Your task to perform on an android device: turn off airplane mode Image 0: 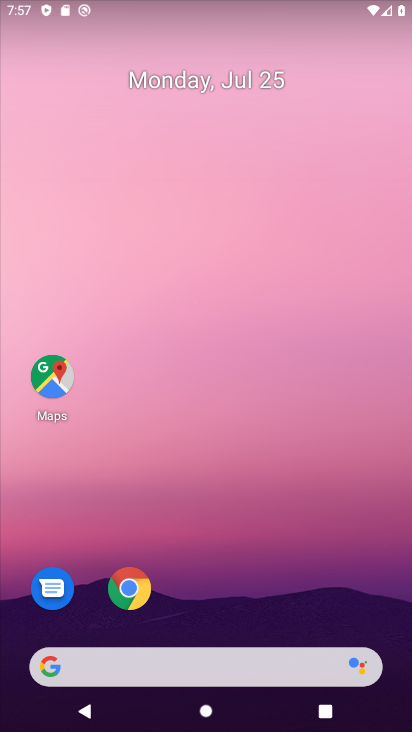
Step 0: drag from (224, 615) to (234, 213)
Your task to perform on an android device: turn off airplane mode Image 1: 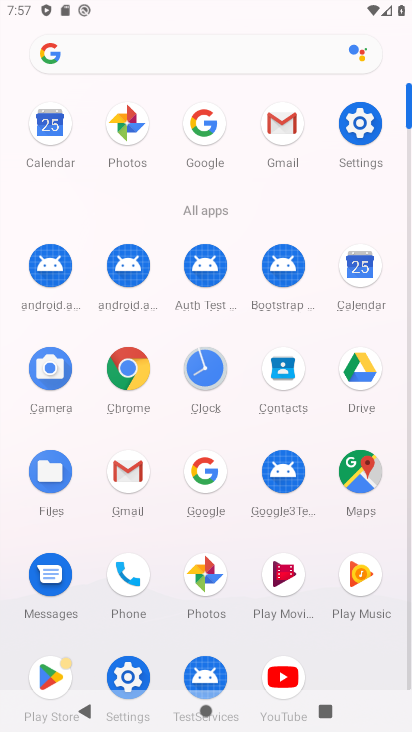
Step 1: click (360, 124)
Your task to perform on an android device: turn off airplane mode Image 2: 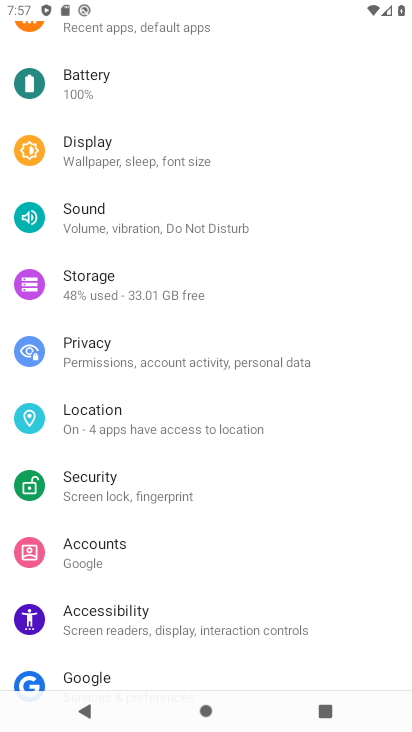
Step 2: drag from (87, 80) to (105, 519)
Your task to perform on an android device: turn off airplane mode Image 3: 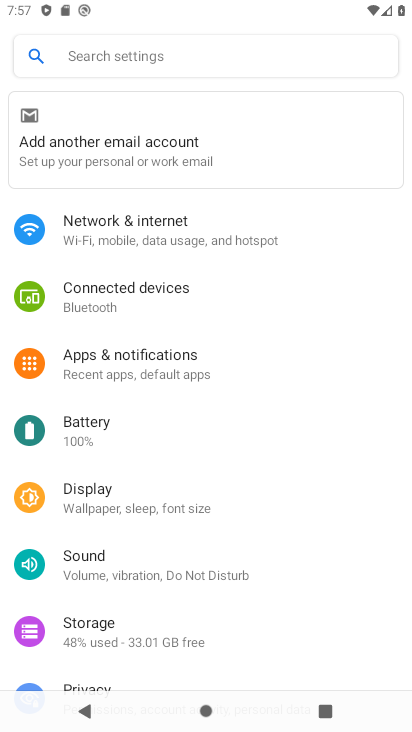
Step 3: click (104, 229)
Your task to perform on an android device: turn off airplane mode Image 4: 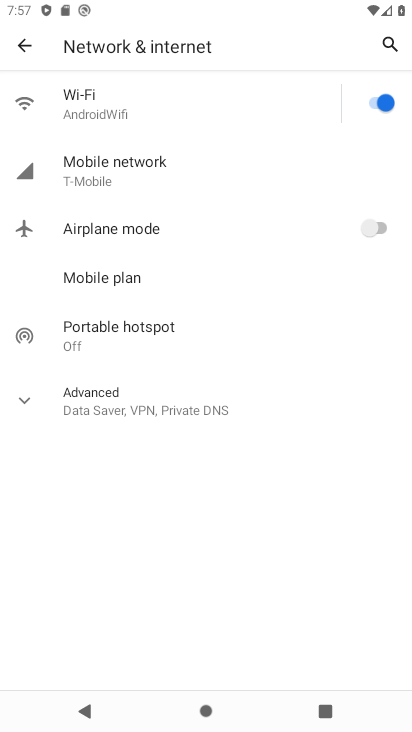
Step 4: task complete